Your task to perform on an android device: Open the Play Movies app and select the watchlist tab. Image 0: 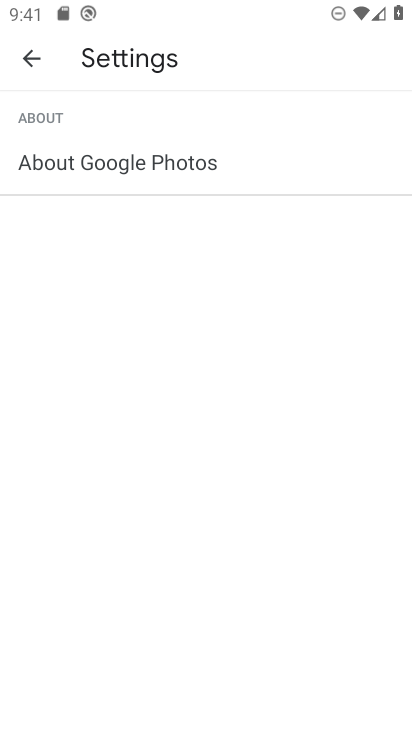
Step 0: press home button
Your task to perform on an android device: Open the Play Movies app and select the watchlist tab. Image 1: 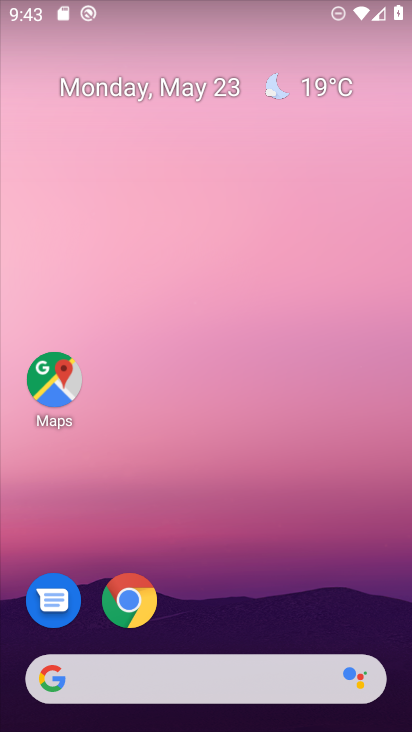
Step 1: drag from (34, 496) to (178, 154)
Your task to perform on an android device: Open the Play Movies app and select the watchlist tab. Image 2: 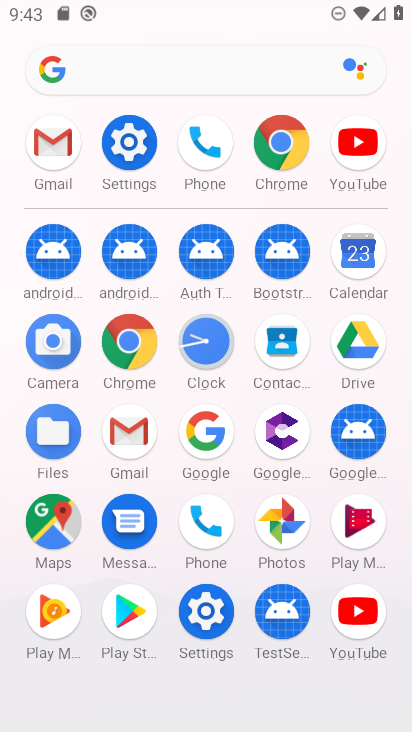
Step 2: click (344, 523)
Your task to perform on an android device: Open the Play Movies app and select the watchlist tab. Image 3: 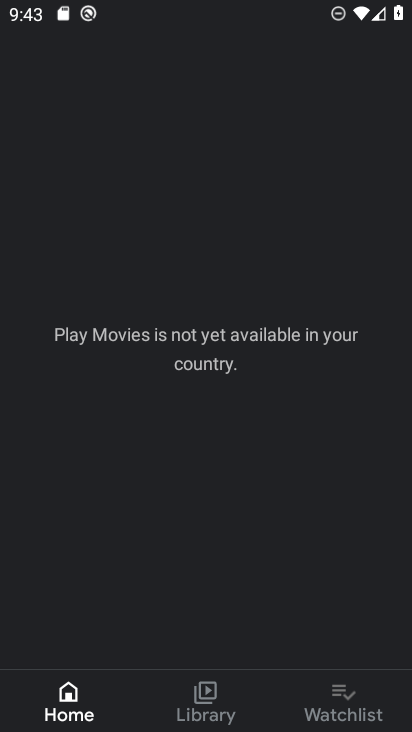
Step 3: click (335, 690)
Your task to perform on an android device: Open the Play Movies app and select the watchlist tab. Image 4: 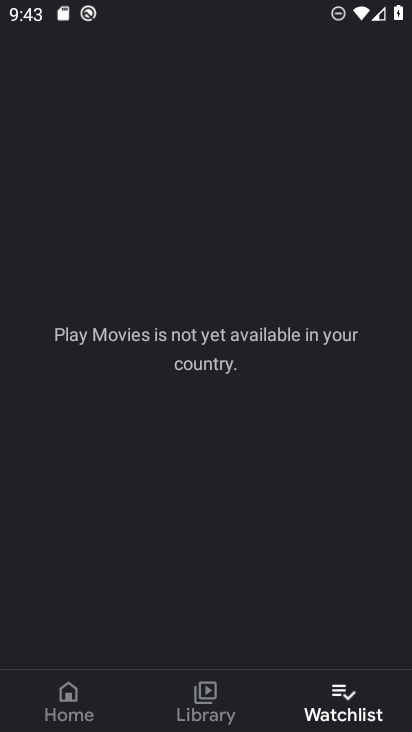
Step 4: task complete